Your task to perform on an android device: Search for Italian restaurants on Maps Image 0: 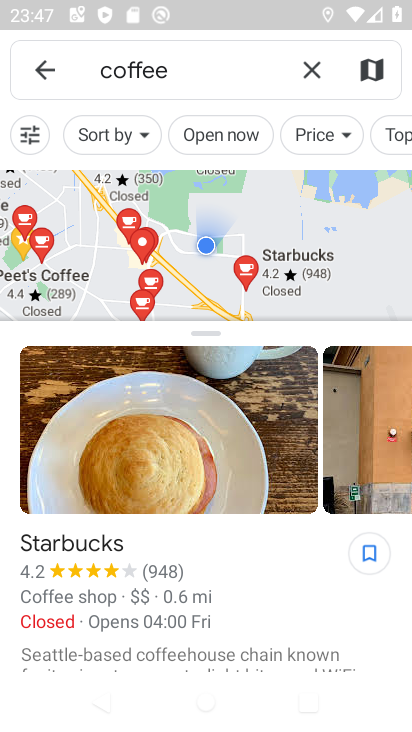
Step 0: press home button
Your task to perform on an android device: Search for Italian restaurants on Maps Image 1: 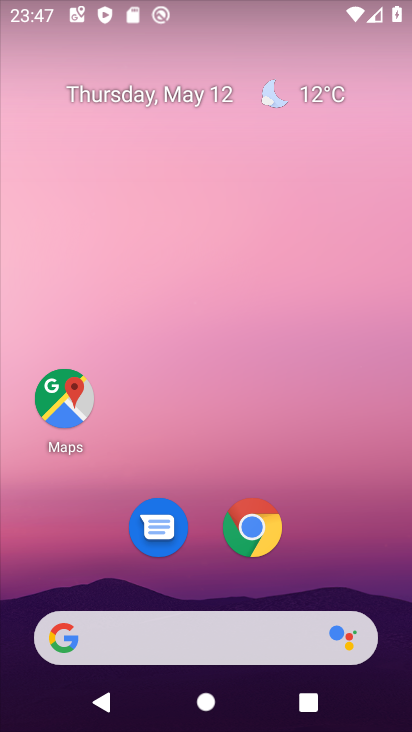
Step 1: click (48, 397)
Your task to perform on an android device: Search for Italian restaurants on Maps Image 2: 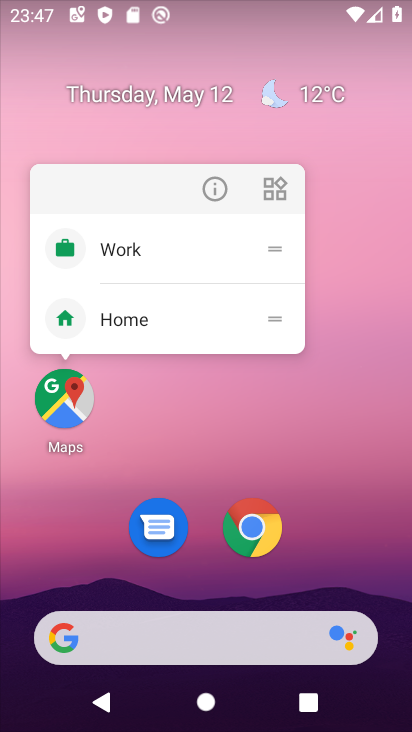
Step 2: click (221, 193)
Your task to perform on an android device: Search for Italian restaurants on Maps Image 3: 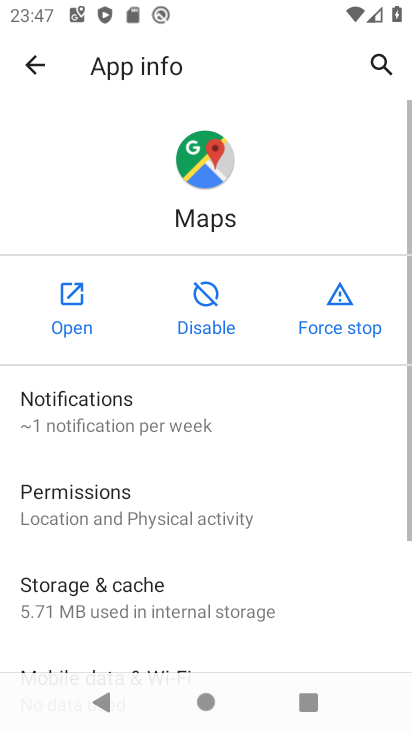
Step 3: click (69, 300)
Your task to perform on an android device: Search for Italian restaurants on Maps Image 4: 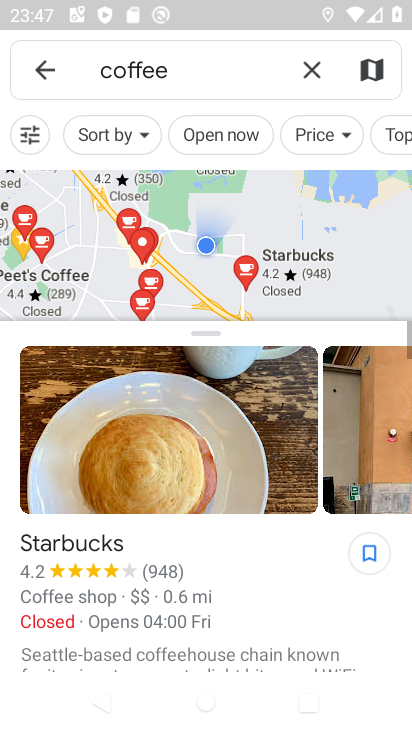
Step 4: click (310, 74)
Your task to perform on an android device: Search for Italian restaurants on Maps Image 5: 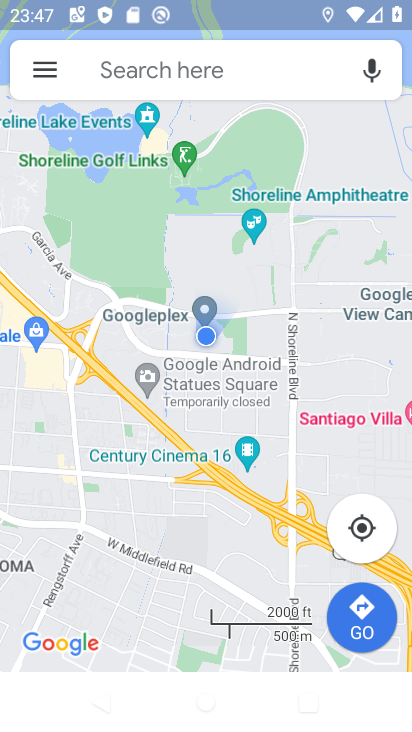
Step 5: click (176, 58)
Your task to perform on an android device: Search for Italian restaurants on Maps Image 6: 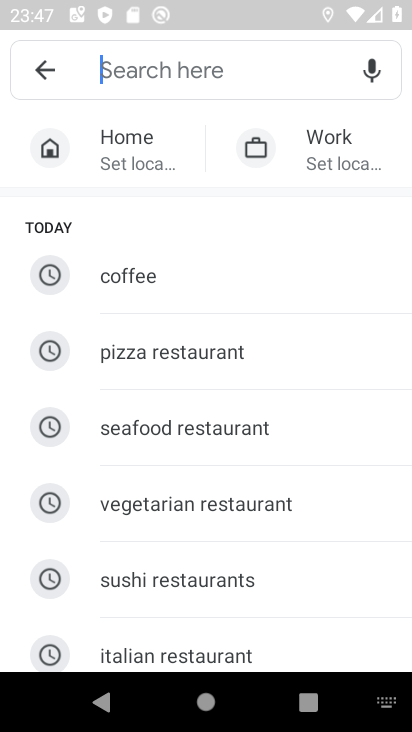
Step 6: click (138, 646)
Your task to perform on an android device: Search for Italian restaurants on Maps Image 7: 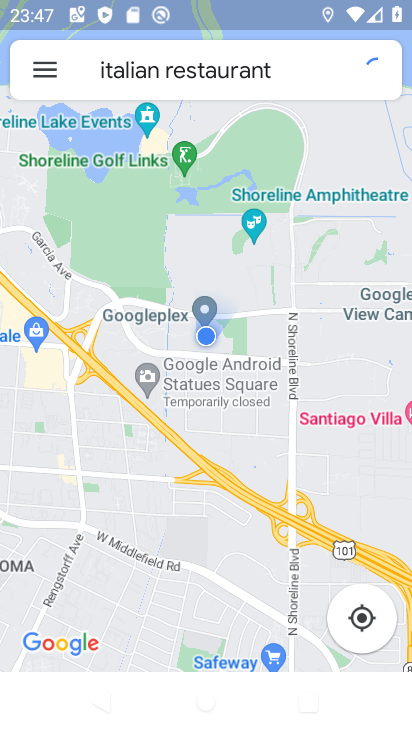
Step 7: task complete